Your task to perform on an android device: check data usage Image 0: 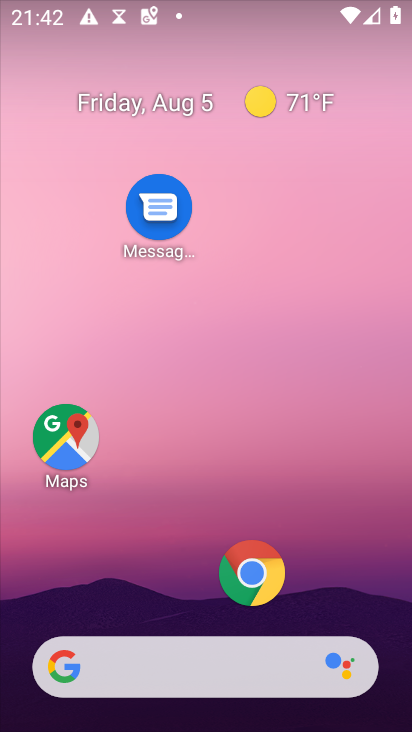
Step 0: drag from (189, 613) to (220, 165)
Your task to perform on an android device: check data usage Image 1: 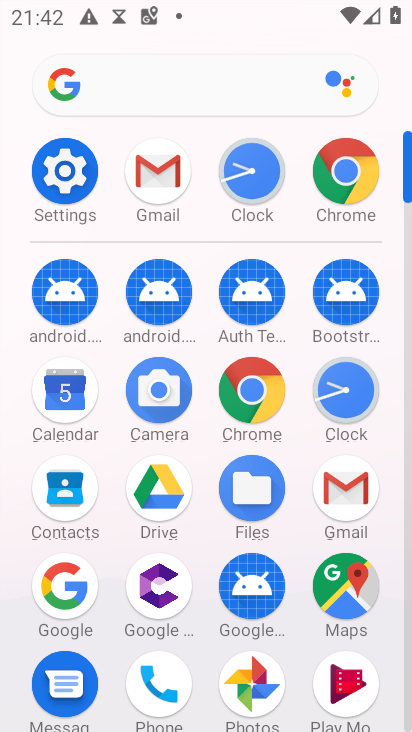
Step 1: click (61, 163)
Your task to perform on an android device: check data usage Image 2: 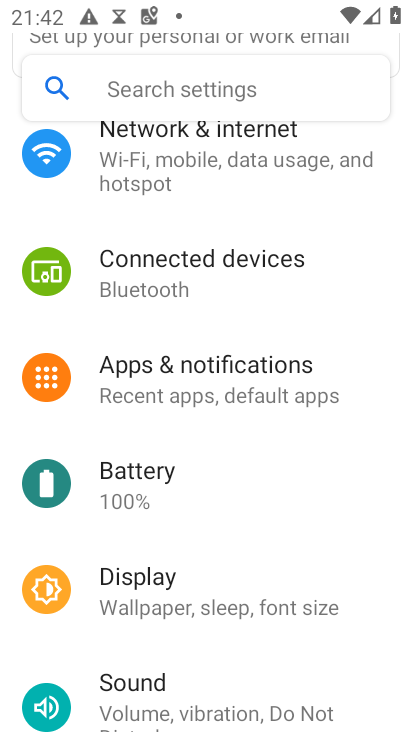
Step 2: click (156, 163)
Your task to perform on an android device: check data usage Image 3: 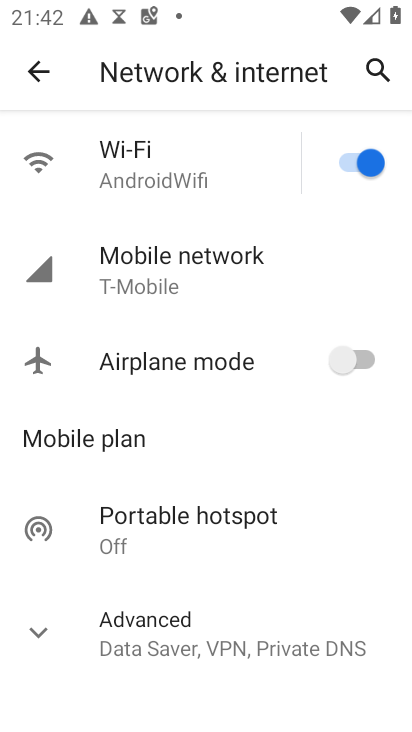
Step 3: click (192, 280)
Your task to perform on an android device: check data usage Image 4: 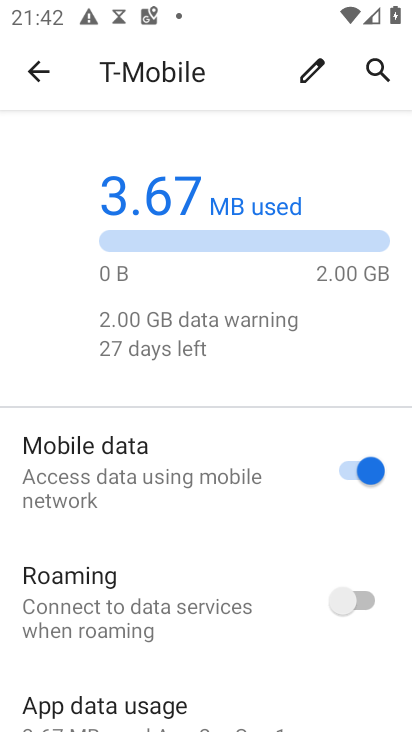
Step 4: click (216, 705)
Your task to perform on an android device: check data usage Image 5: 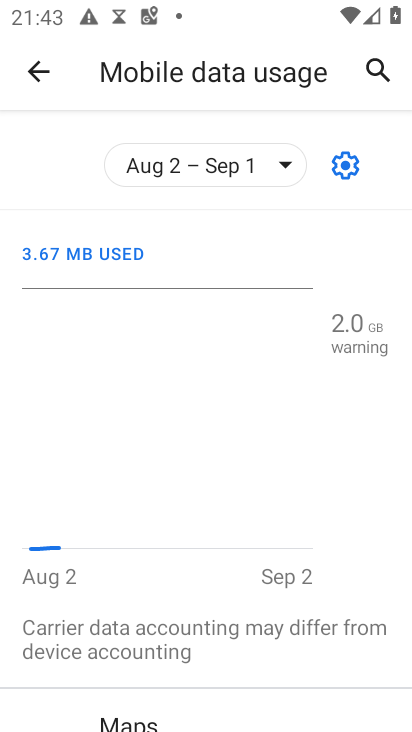
Step 5: task complete